Your task to perform on an android device: Clear the cart on costco. Search for "duracell triple a" on costco, select the first entry, and add it to the cart. Image 0: 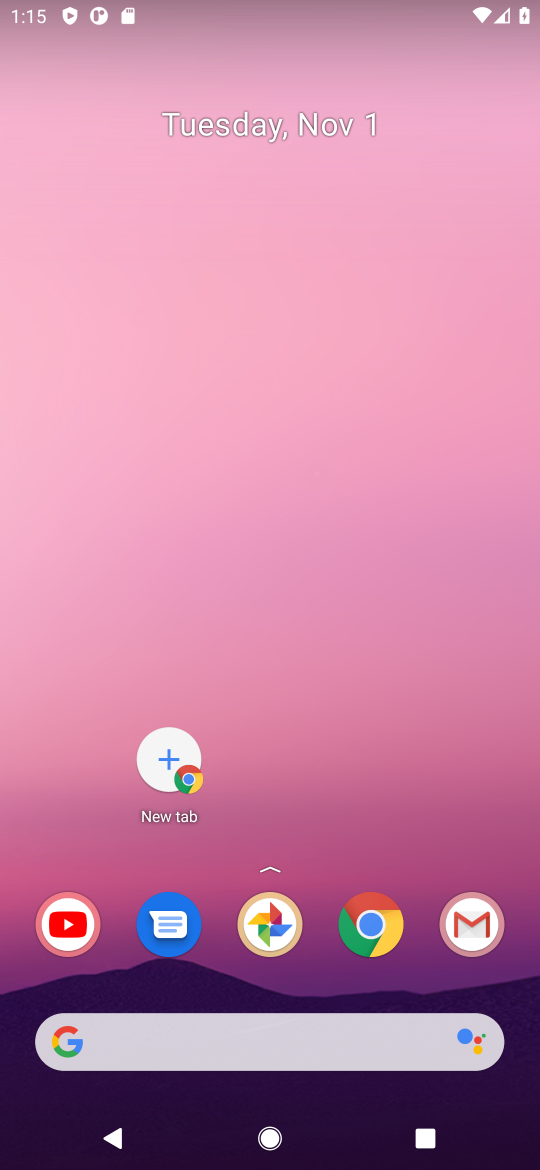
Step 0: click (371, 919)
Your task to perform on an android device: Clear the cart on costco. Search for "duracell triple a" on costco, select the first entry, and add it to the cart. Image 1: 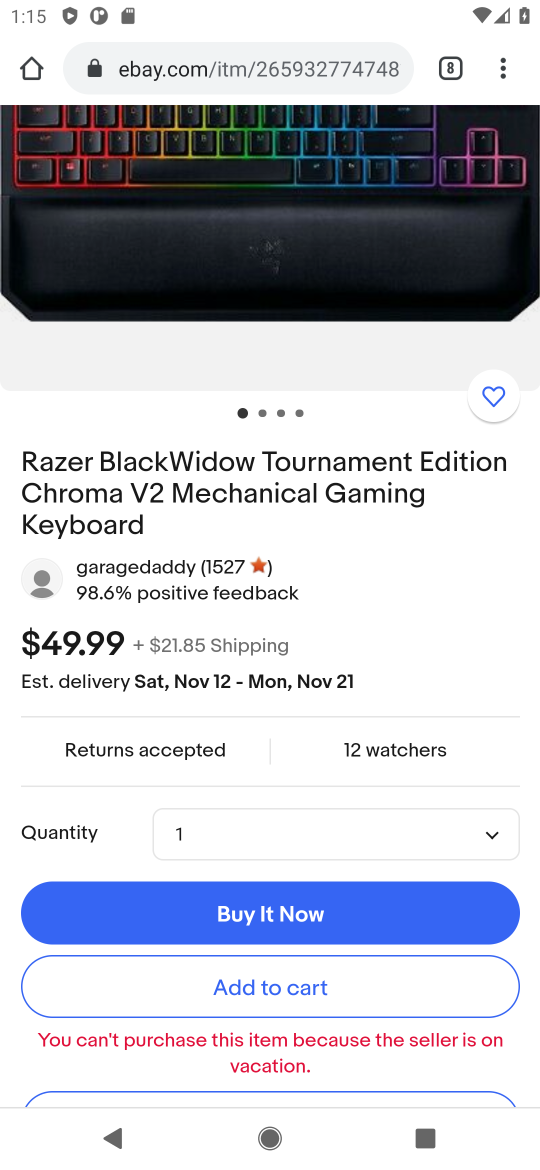
Step 1: click (271, 73)
Your task to perform on an android device: Clear the cart on costco. Search for "duracell triple a" on costco, select the first entry, and add it to the cart. Image 2: 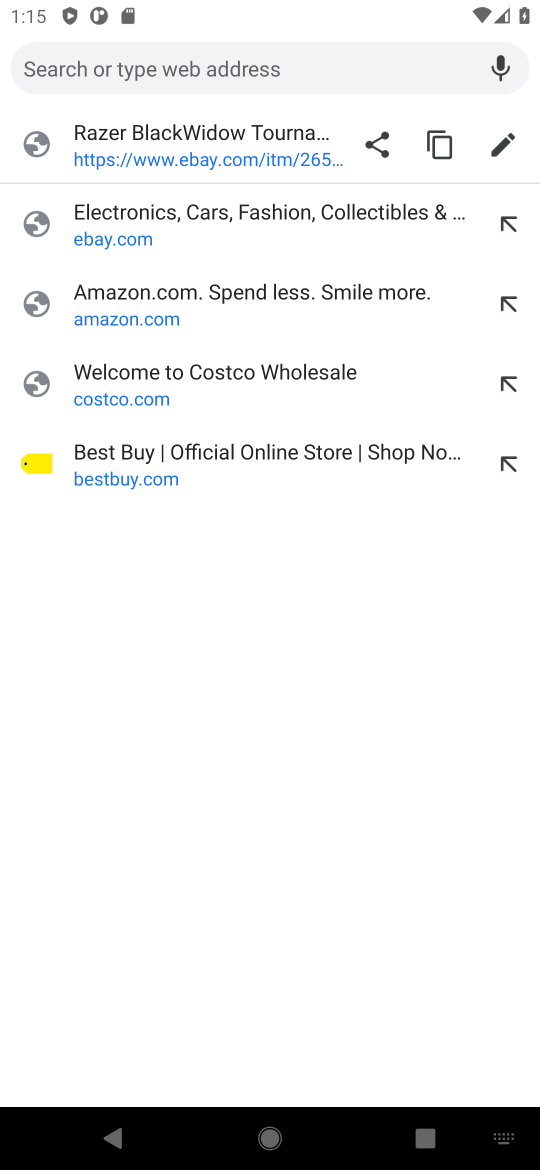
Step 2: type "costco"
Your task to perform on an android device: Clear the cart on costco. Search for "duracell triple a" on costco, select the first entry, and add it to the cart. Image 3: 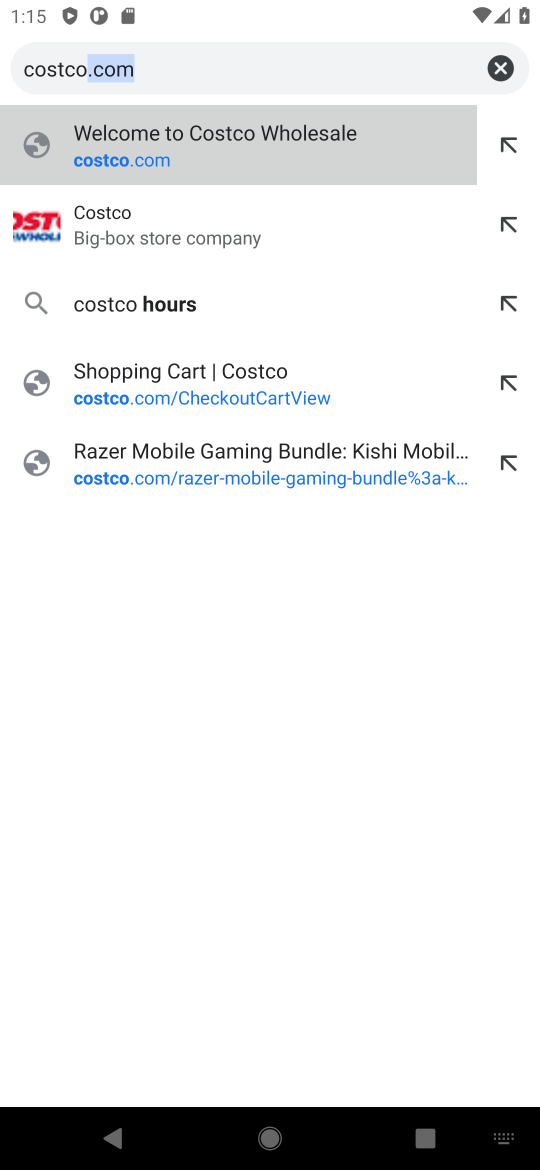
Step 3: click (197, 223)
Your task to perform on an android device: Clear the cart on costco. Search for "duracell triple a" on costco, select the first entry, and add it to the cart. Image 4: 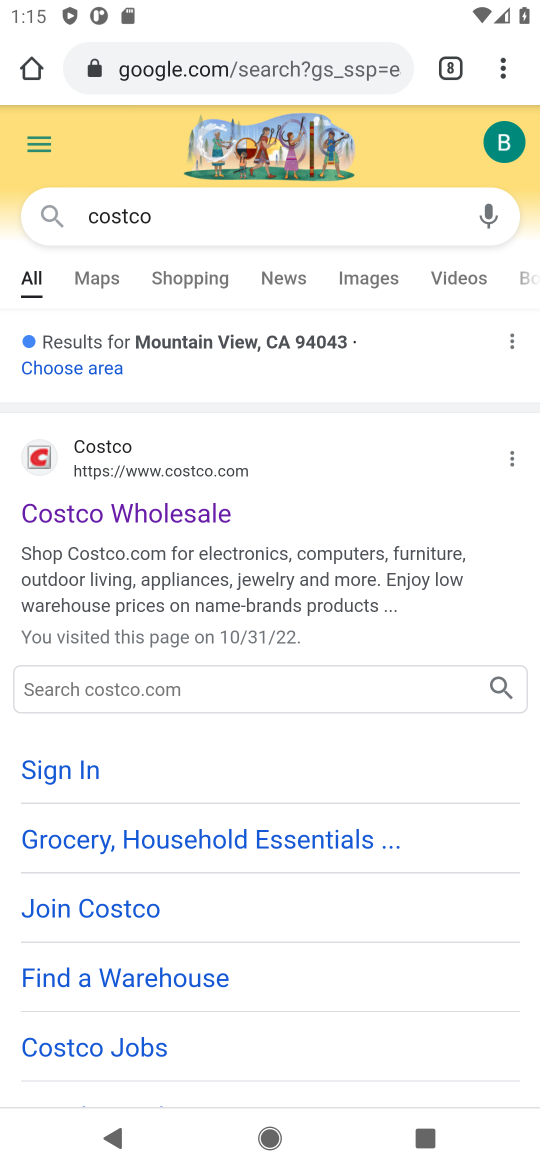
Step 4: drag from (256, 962) to (273, 466)
Your task to perform on an android device: Clear the cart on costco. Search for "duracell triple a" on costco, select the first entry, and add it to the cart. Image 5: 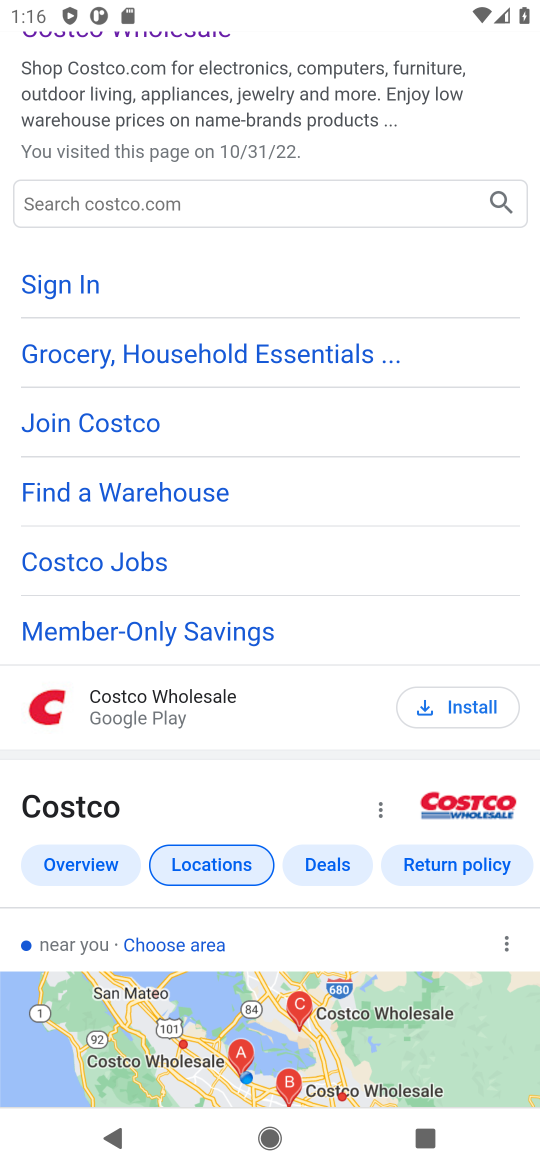
Step 5: drag from (176, 983) to (218, 301)
Your task to perform on an android device: Clear the cart on costco. Search for "duracell triple a" on costco, select the first entry, and add it to the cart. Image 6: 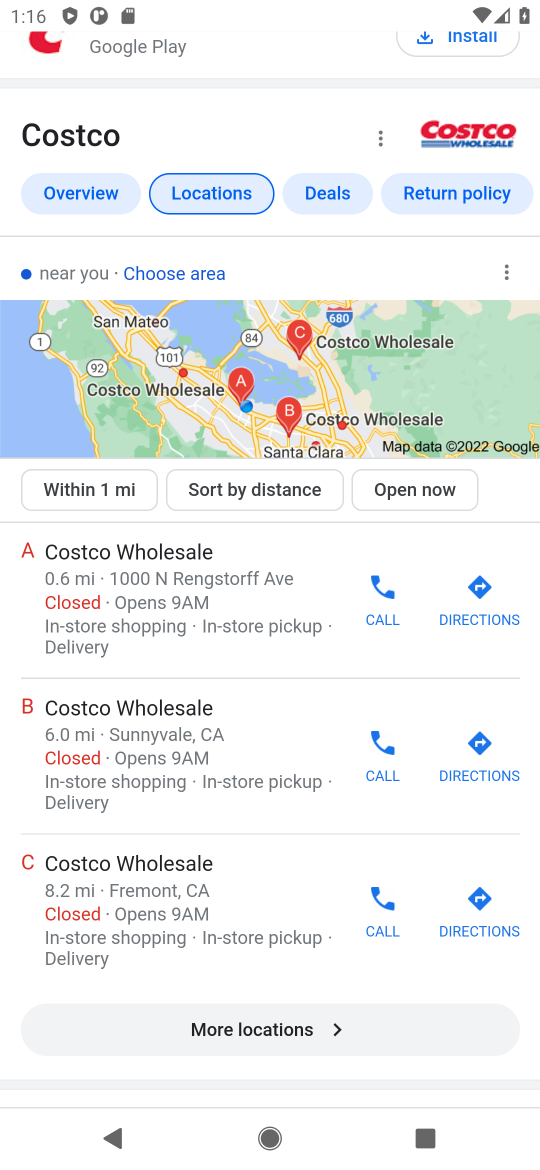
Step 6: drag from (171, 971) to (221, 356)
Your task to perform on an android device: Clear the cart on costco. Search for "duracell triple a" on costco, select the first entry, and add it to the cart. Image 7: 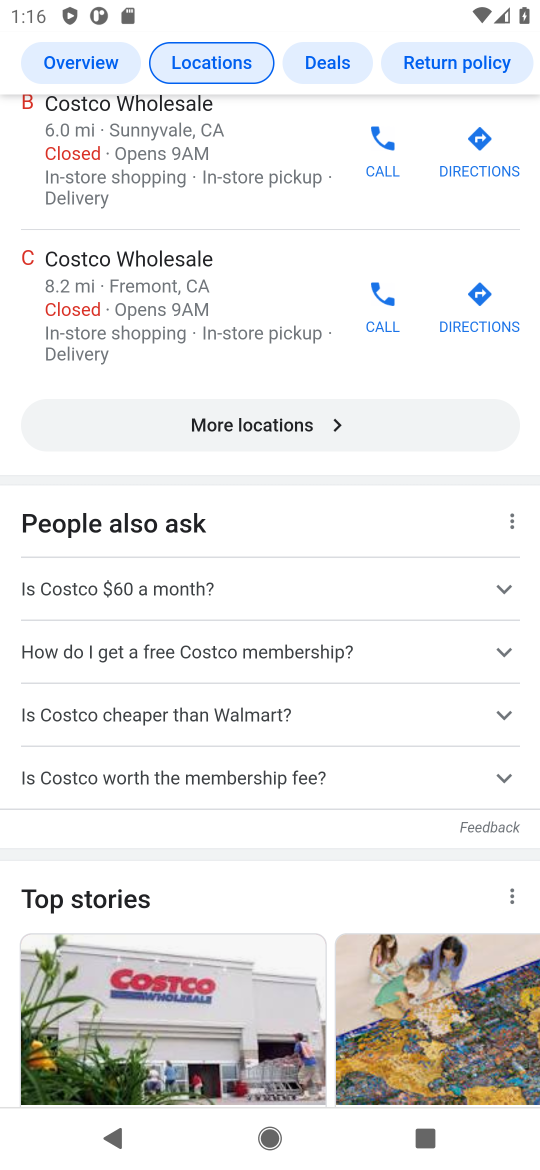
Step 7: drag from (236, 818) to (261, 368)
Your task to perform on an android device: Clear the cart on costco. Search for "duracell triple a" on costco, select the first entry, and add it to the cart. Image 8: 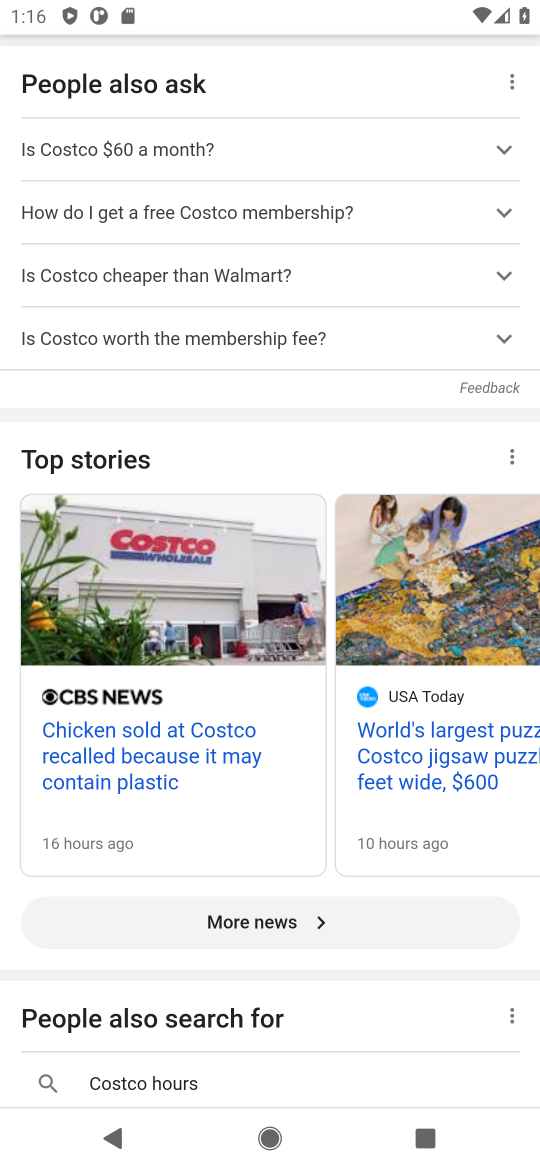
Step 8: drag from (277, 249) to (260, 1148)
Your task to perform on an android device: Clear the cart on costco. Search for "duracell triple a" on costco, select the first entry, and add it to the cart. Image 9: 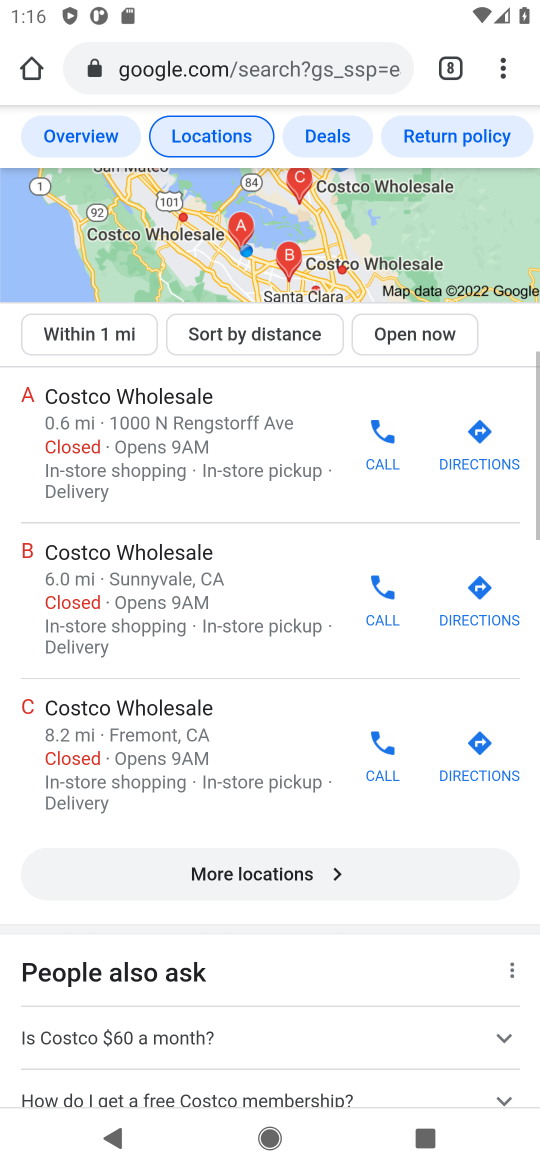
Step 9: drag from (227, 486) to (230, 1055)
Your task to perform on an android device: Clear the cart on costco. Search for "duracell triple a" on costco, select the first entry, and add it to the cart. Image 10: 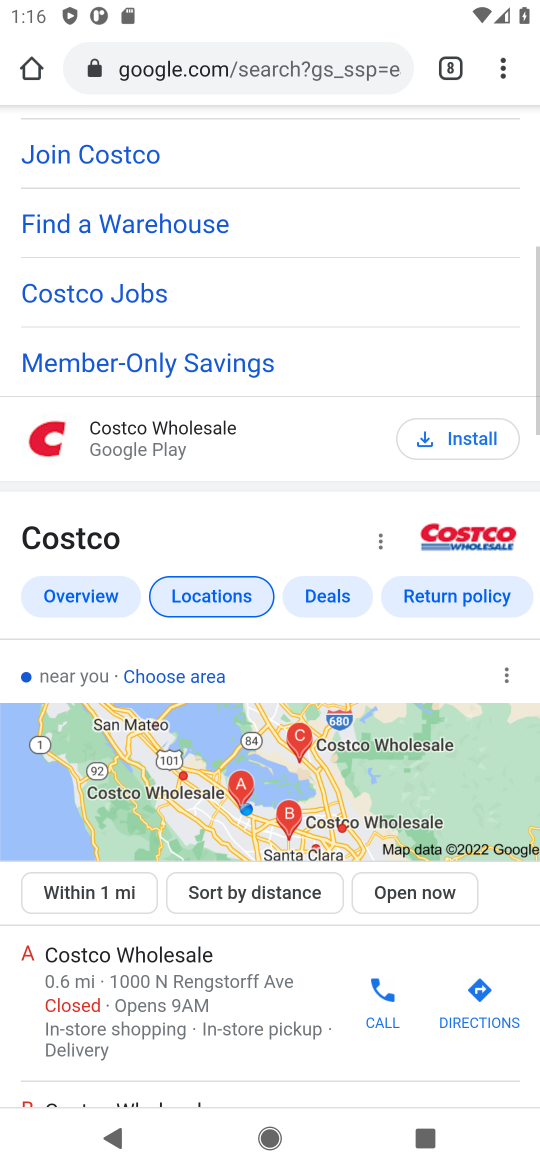
Step 10: drag from (254, 384) to (250, 831)
Your task to perform on an android device: Clear the cart on costco. Search for "duracell triple a" on costco, select the first entry, and add it to the cart. Image 11: 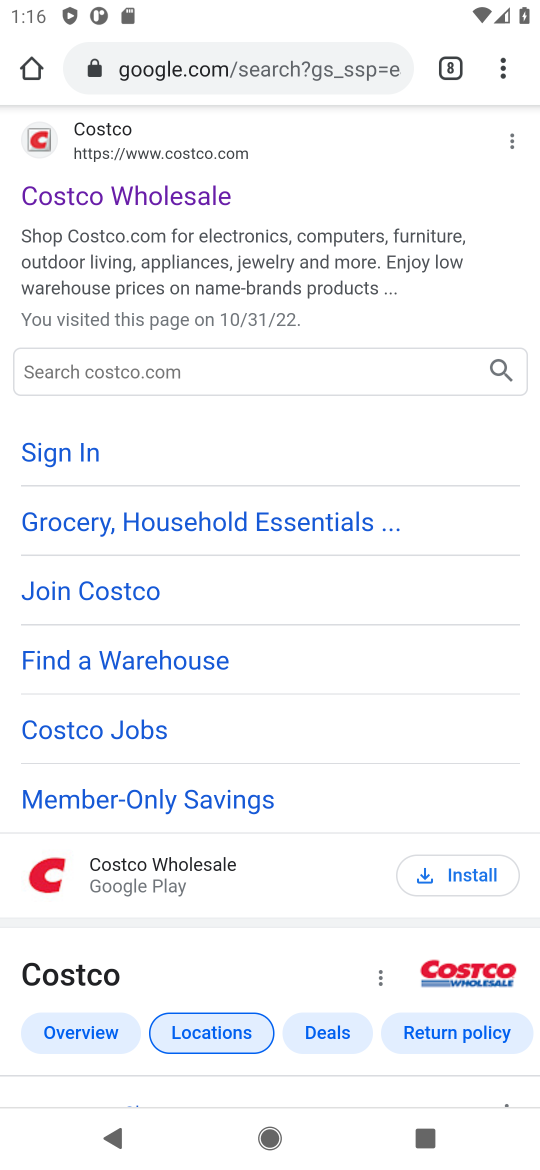
Step 11: click (53, 201)
Your task to perform on an android device: Clear the cart on costco. Search for "duracell triple a" on costco, select the first entry, and add it to the cart. Image 12: 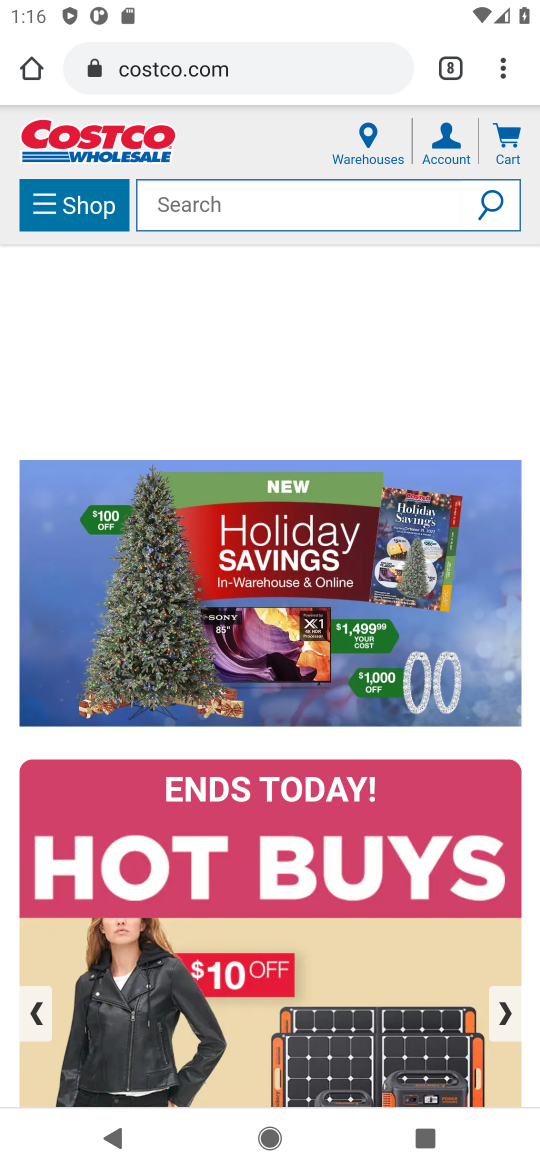
Step 12: click (196, 202)
Your task to perform on an android device: Clear the cart on costco. Search for "duracell triple a" on costco, select the first entry, and add it to the cart. Image 13: 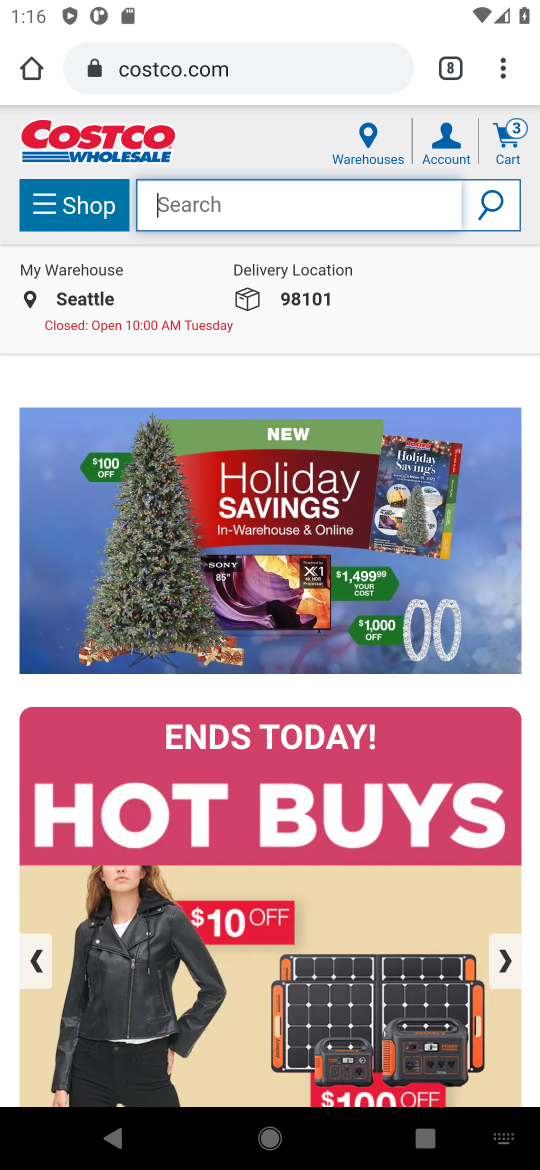
Step 13: type "duracell triple"
Your task to perform on an android device: Clear the cart on costco. Search for "duracell triple a" on costco, select the first entry, and add it to the cart. Image 14: 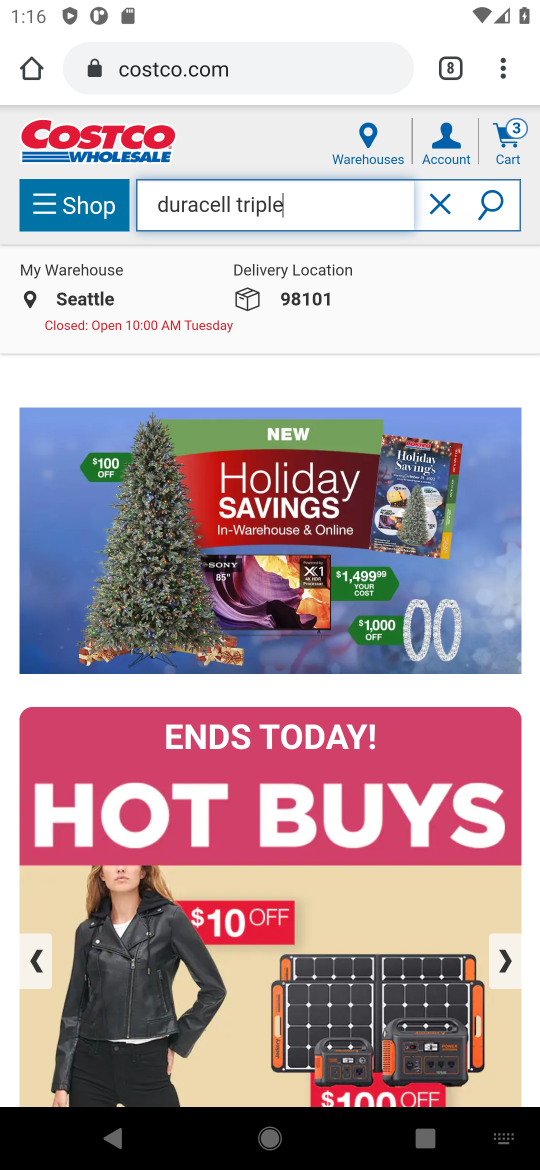
Step 14: type ""
Your task to perform on an android device: Clear the cart on costco. Search for "duracell triple a" on costco, select the first entry, and add it to the cart. Image 15: 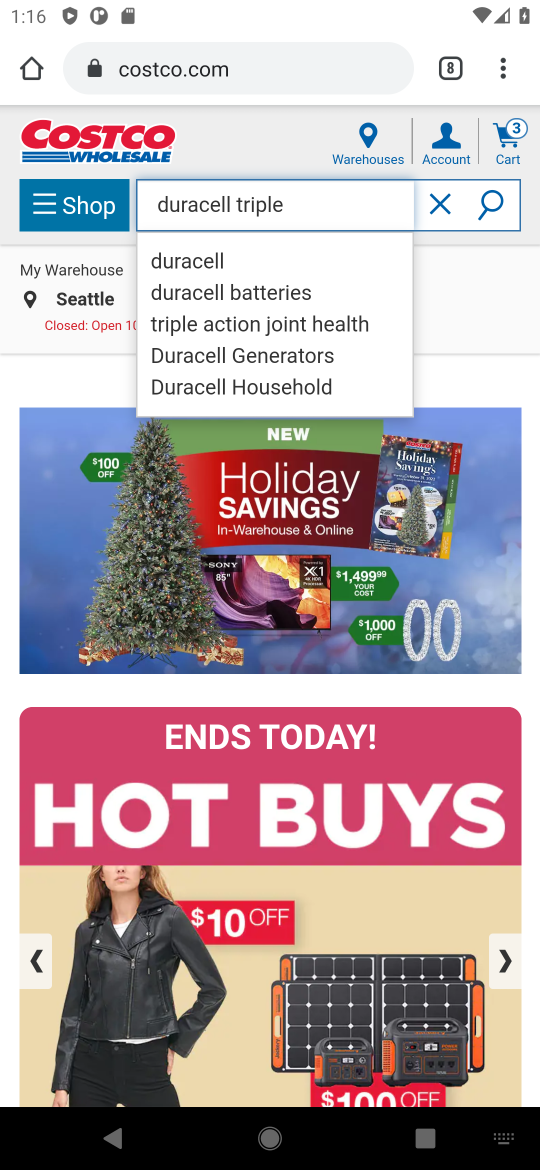
Step 15: click (218, 268)
Your task to perform on an android device: Clear the cart on costco. Search for "duracell triple a" on costco, select the first entry, and add it to the cart. Image 16: 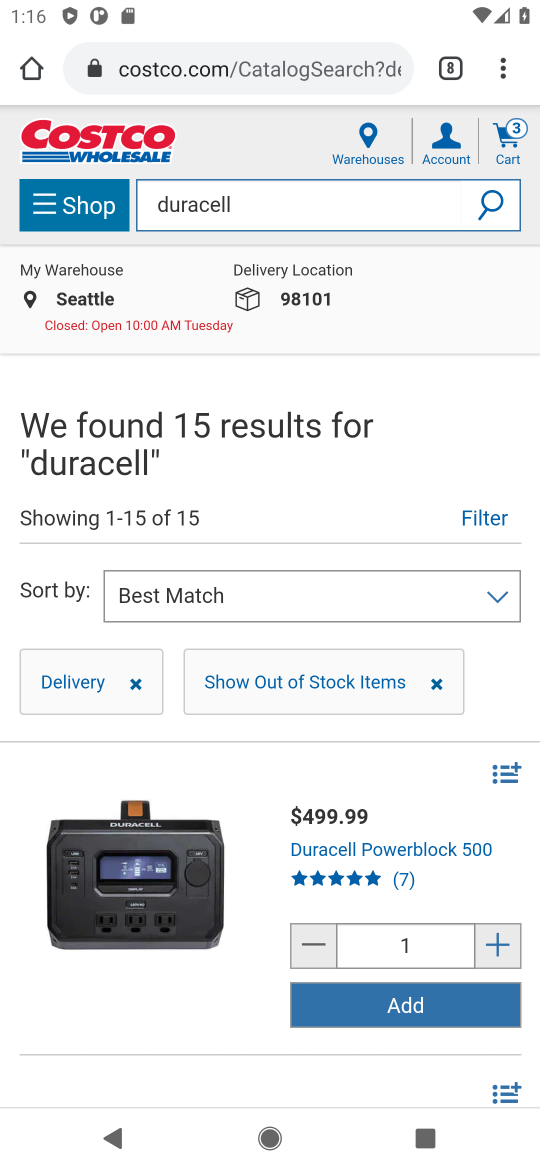
Step 16: drag from (164, 959) to (212, 163)
Your task to perform on an android device: Clear the cart on costco. Search for "duracell triple a" on costco, select the first entry, and add it to the cart. Image 17: 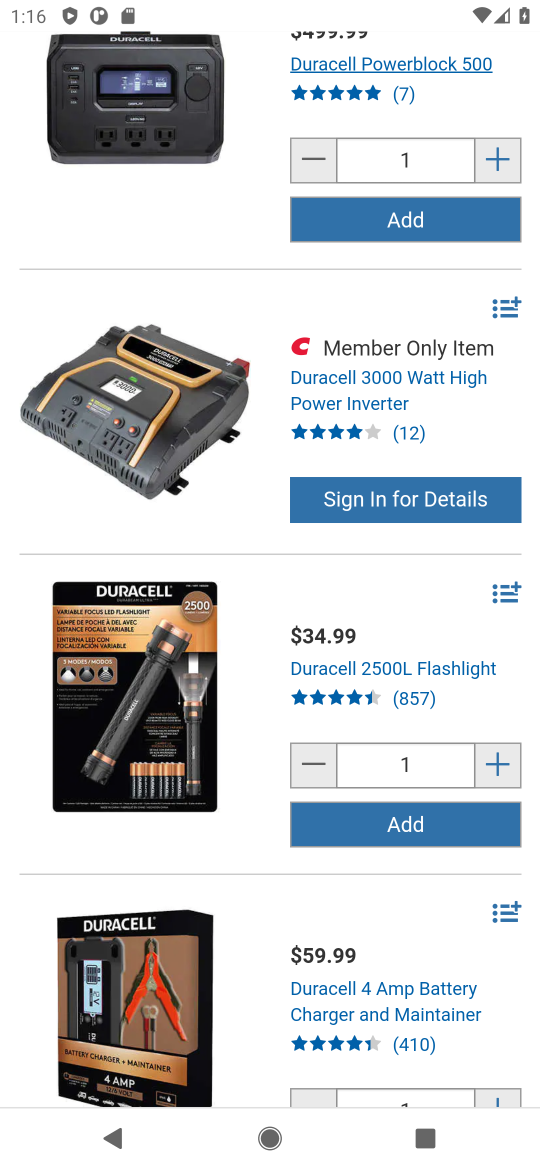
Step 17: click (146, 649)
Your task to perform on an android device: Clear the cart on costco. Search for "duracell triple a" on costco, select the first entry, and add it to the cart. Image 18: 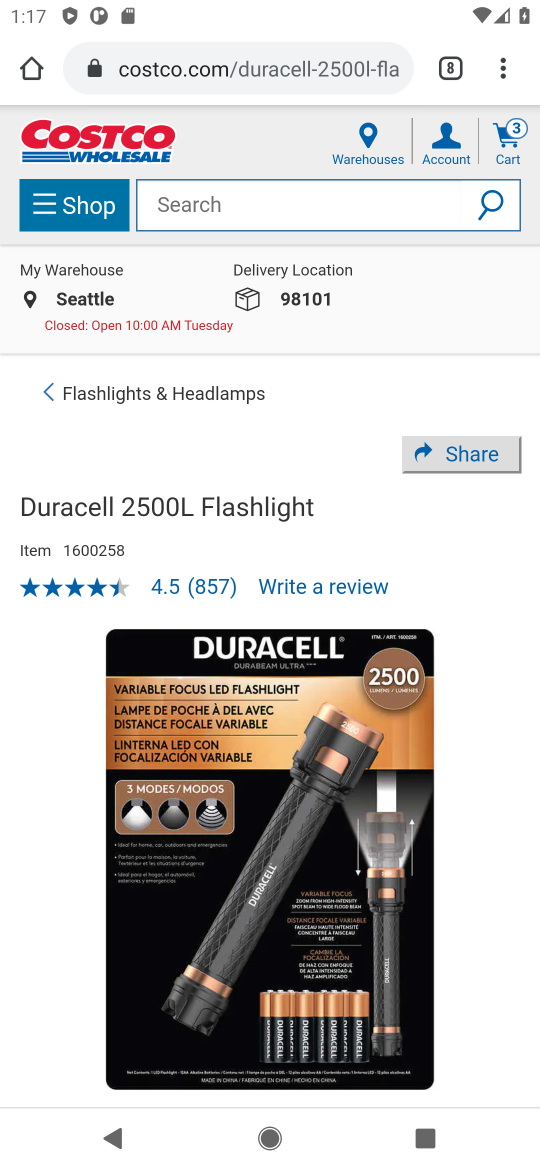
Step 18: drag from (257, 946) to (515, 652)
Your task to perform on an android device: Clear the cart on costco. Search for "duracell triple a" on costco, select the first entry, and add it to the cart. Image 19: 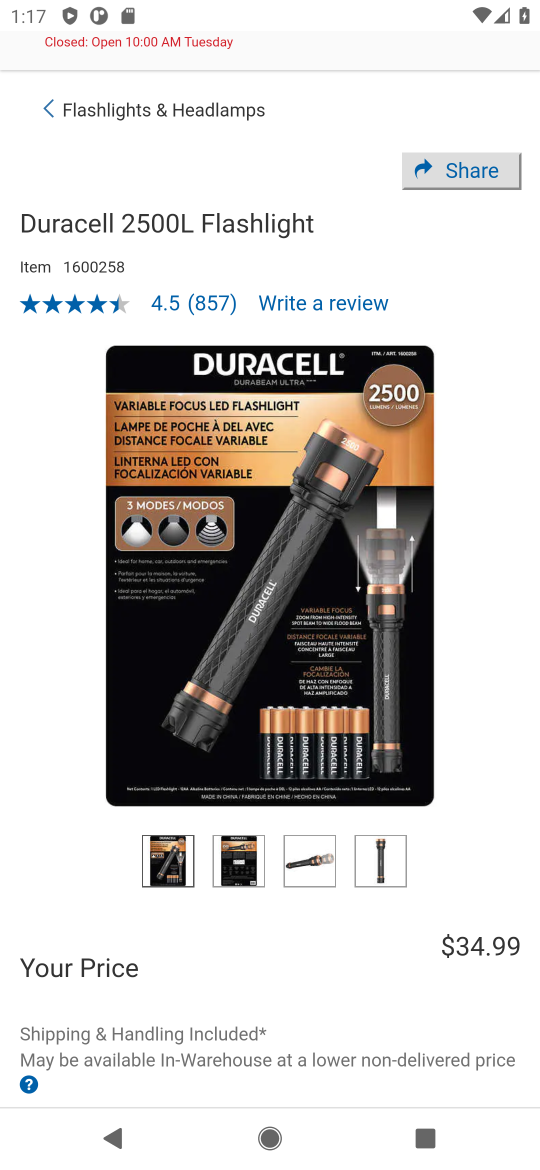
Step 19: drag from (230, 871) to (212, 301)
Your task to perform on an android device: Clear the cart on costco. Search for "duracell triple a" on costco, select the first entry, and add it to the cart. Image 20: 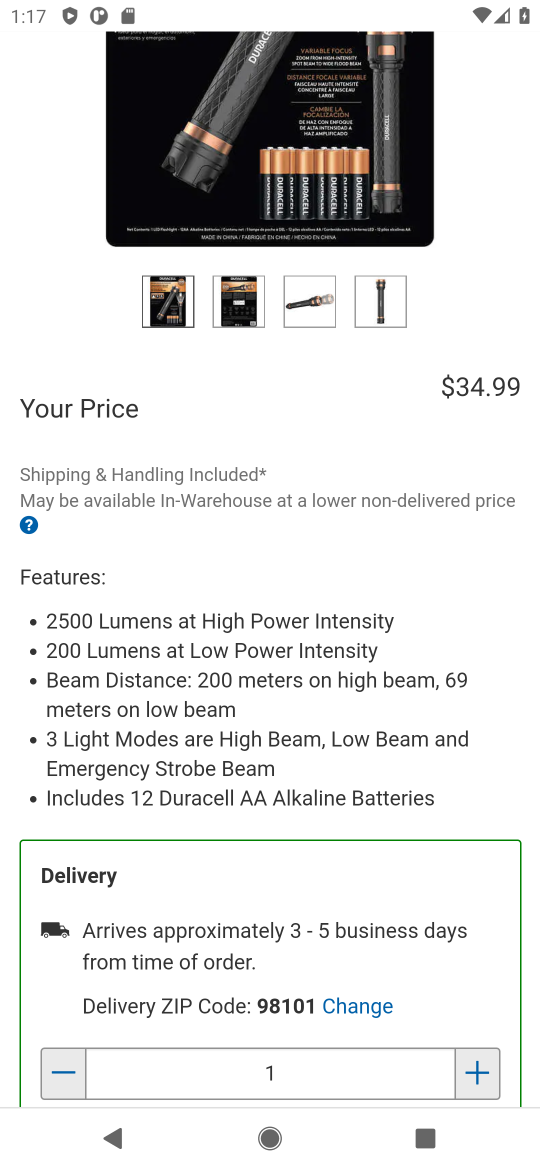
Step 20: drag from (267, 769) to (276, 154)
Your task to perform on an android device: Clear the cart on costco. Search for "duracell triple a" on costco, select the first entry, and add it to the cart. Image 21: 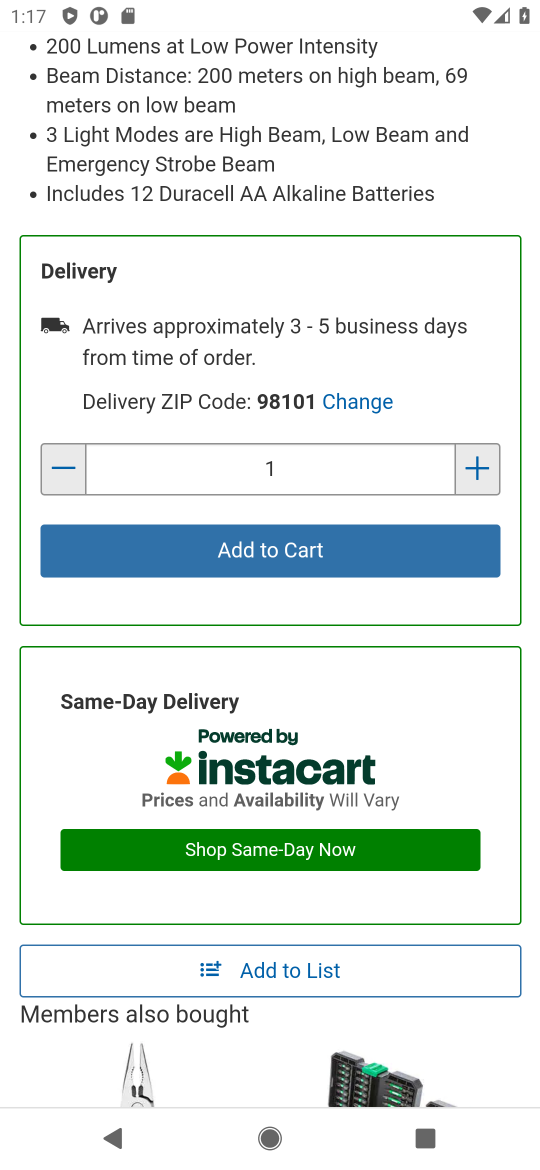
Step 21: click (251, 553)
Your task to perform on an android device: Clear the cart on costco. Search for "duracell triple a" on costco, select the first entry, and add it to the cart. Image 22: 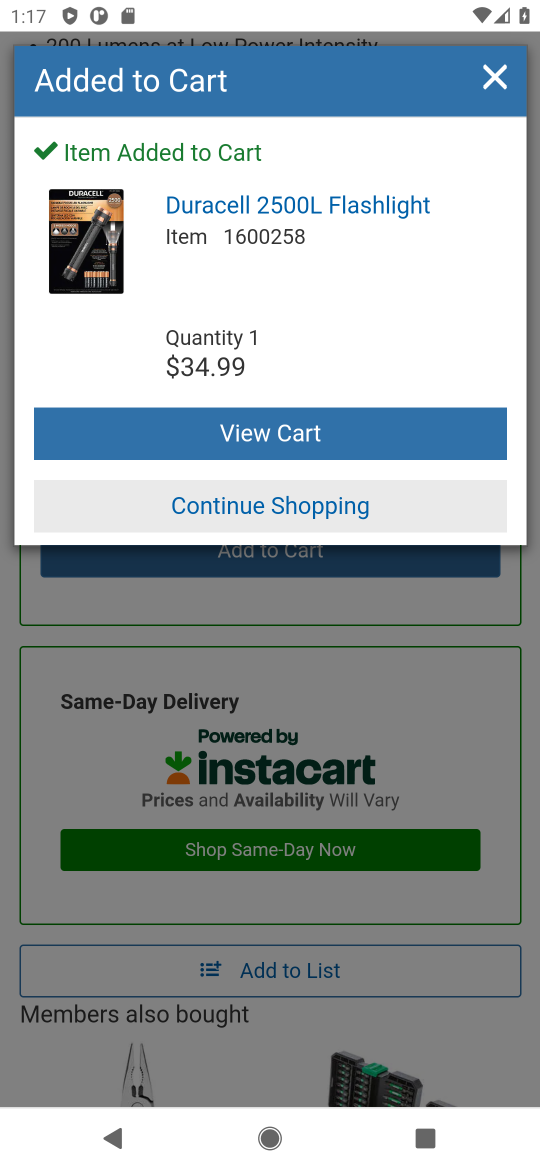
Step 22: click (237, 430)
Your task to perform on an android device: Clear the cart on costco. Search for "duracell triple a" on costco, select the first entry, and add it to the cart. Image 23: 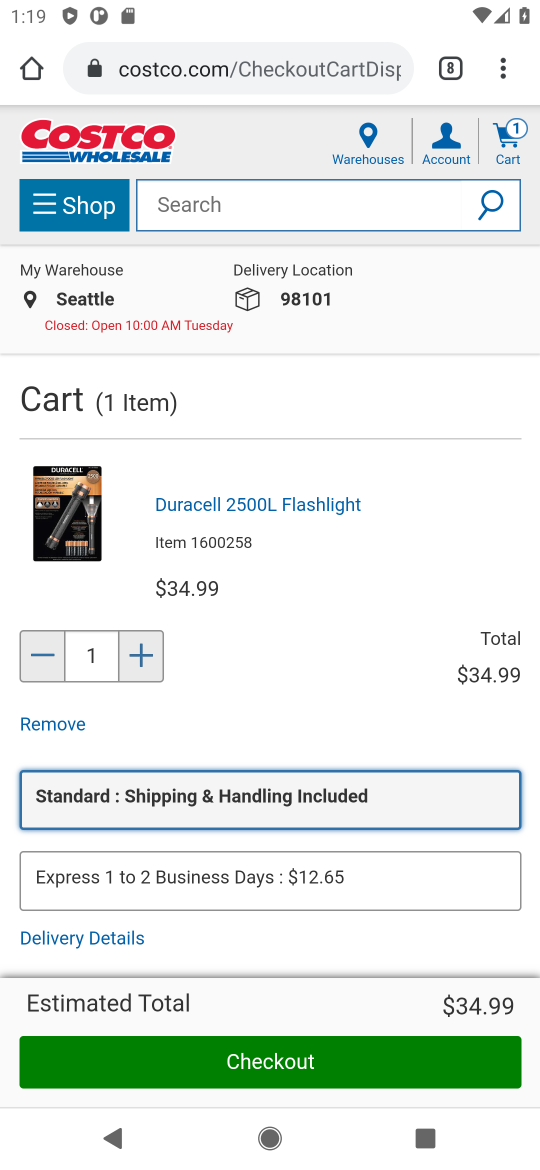
Step 23: task complete